Your task to perform on an android device: Go to calendar. Show me events next week Image 0: 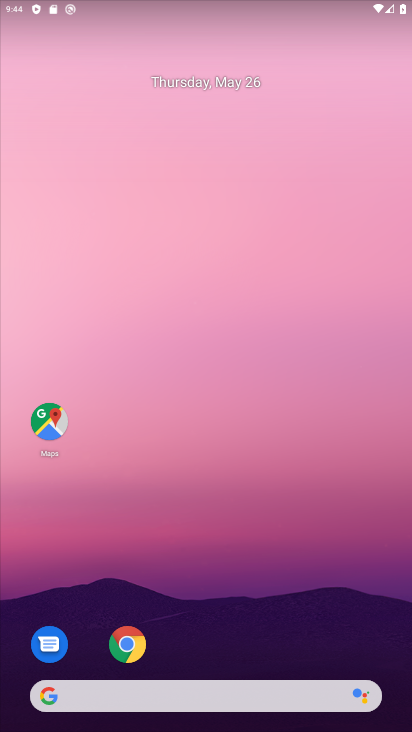
Step 0: drag from (272, 638) to (305, 39)
Your task to perform on an android device: Go to calendar. Show me events next week Image 1: 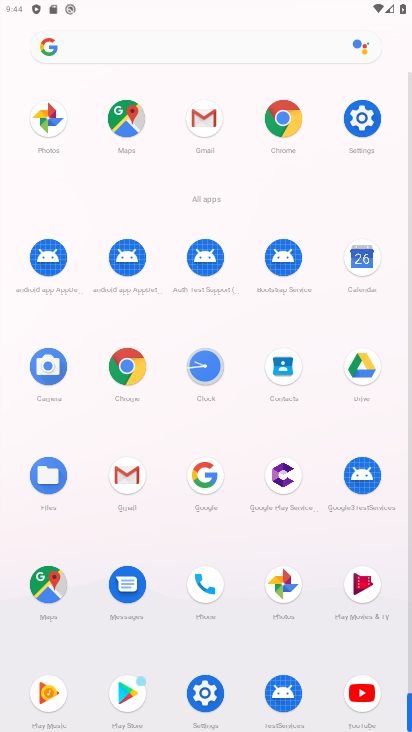
Step 1: click (366, 267)
Your task to perform on an android device: Go to calendar. Show me events next week Image 2: 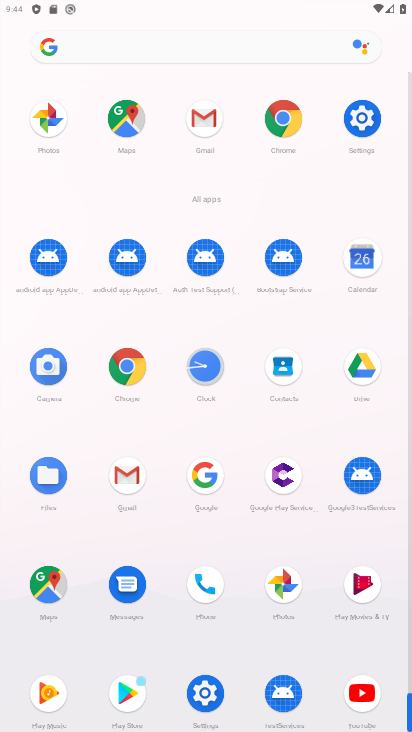
Step 2: click (367, 266)
Your task to perform on an android device: Go to calendar. Show me events next week Image 3: 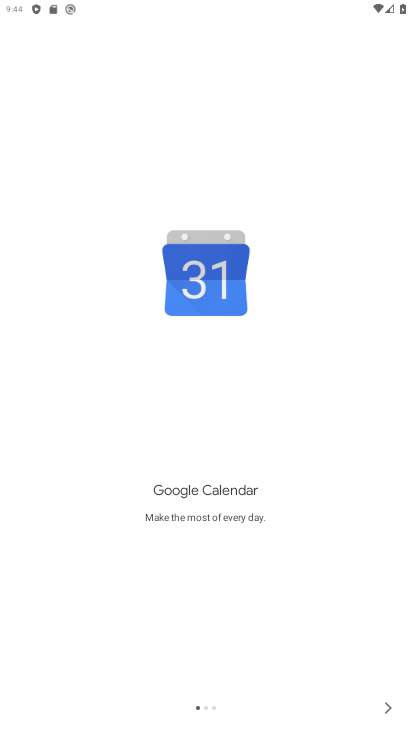
Step 3: click (378, 708)
Your task to perform on an android device: Go to calendar. Show me events next week Image 4: 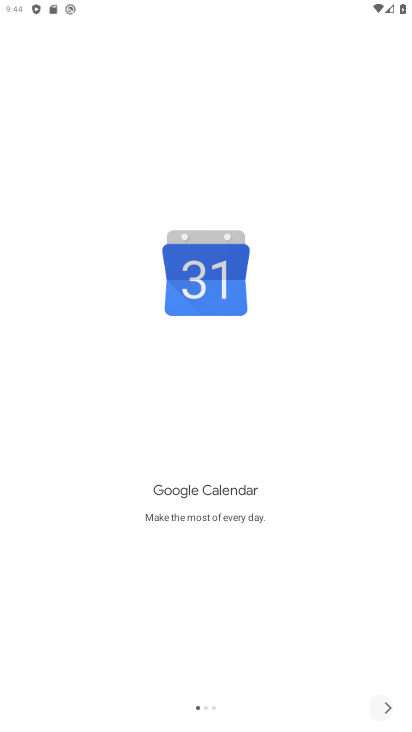
Step 4: click (380, 701)
Your task to perform on an android device: Go to calendar. Show me events next week Image 5: 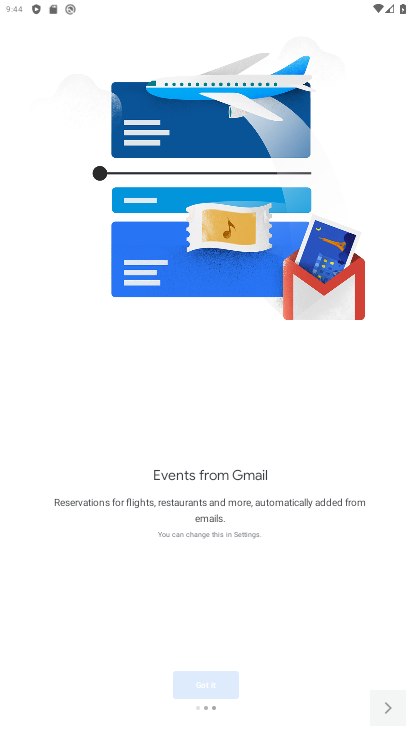
Step 5: click (382, 697)
Your task to perform on an android device: Go to calendar. Show me events next week Image 6: 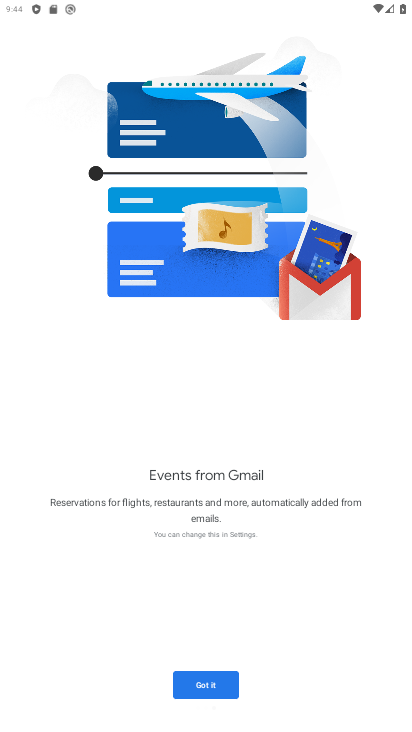
Step 6: click (381, 696)
Your task to perform on an android device: Go to calendar. Show me events next week Image 7: 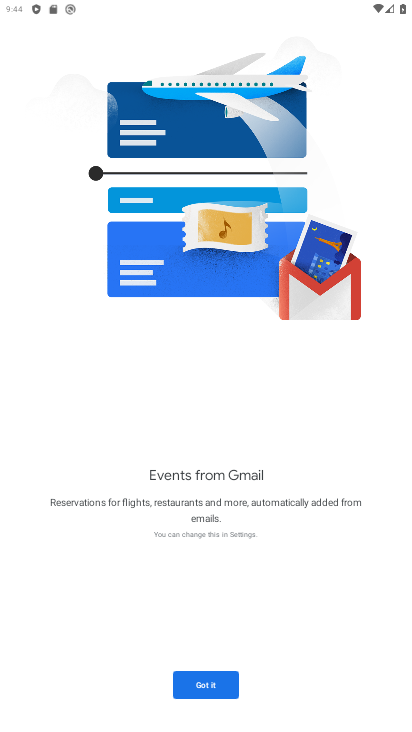
Step 7: click (381, 696)
Your task to perform on an android device: Go to calendar. Show me events next week Image 8: 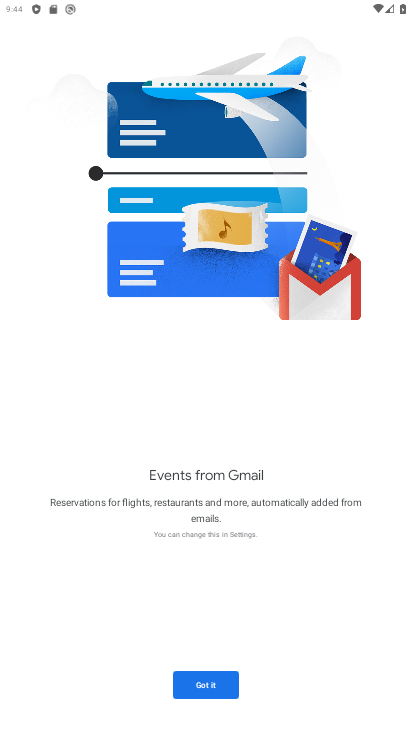
Step 8: click (380, 695)
Your task to perform on an android device: Go to calendar. Show me events next week Image 9: 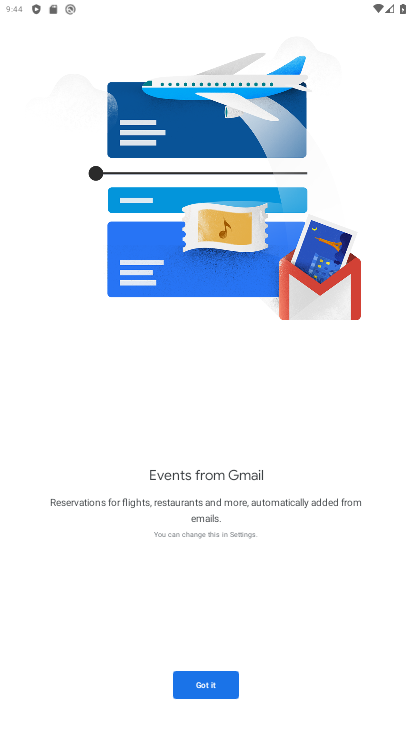
Step 9: click (212, 675)
Your task to perform on an android device: Go to calendar. Show me events next week Image 10: 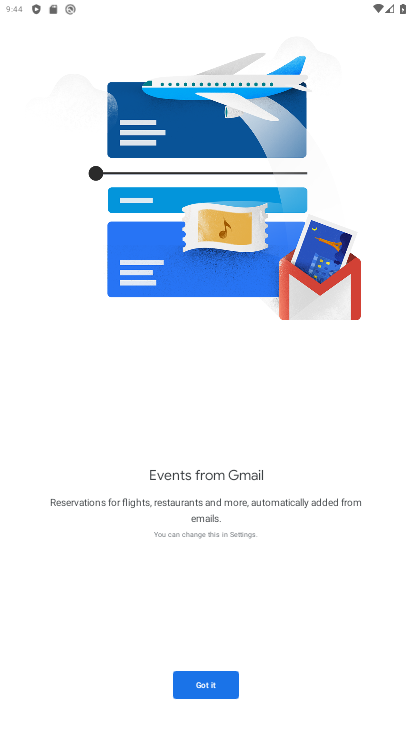
Step 10: click (204, 665)
Your task to perform on an android device: Go to calendar. Show me events next week Image 11: 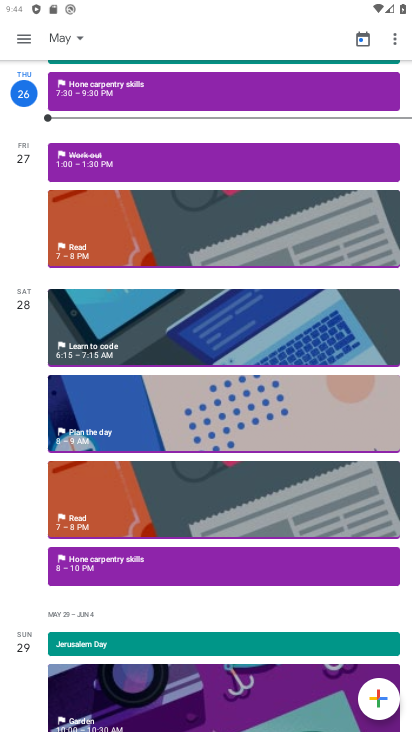
Step 11: drag from (126, 463) to (69, 89)
Your task to perform on an android device: Go to calendar. Show me events next week Image 12: 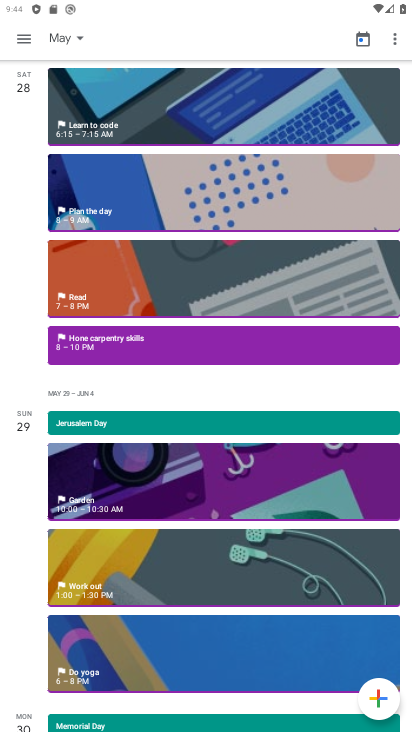
Step 12: drag from (189, 405) to (142, 41)
Your task to perform on an android device: Go to calendar. Show me events next week Image 13: 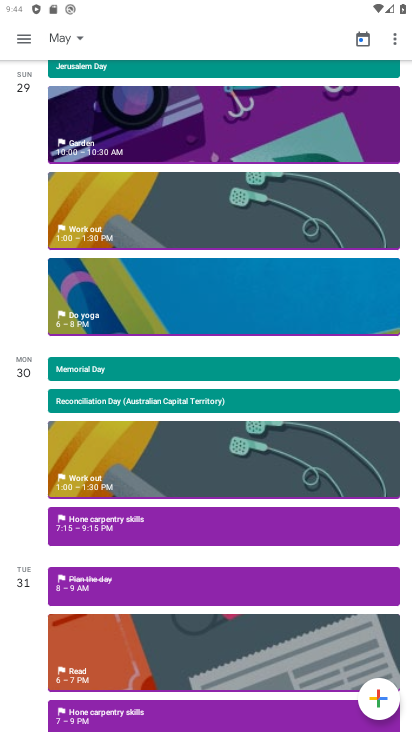
Step 13: drag from (200, 521) to (136, 71)
Your task to perform on an android device: Go to calendar. Show me events next week Image 14: 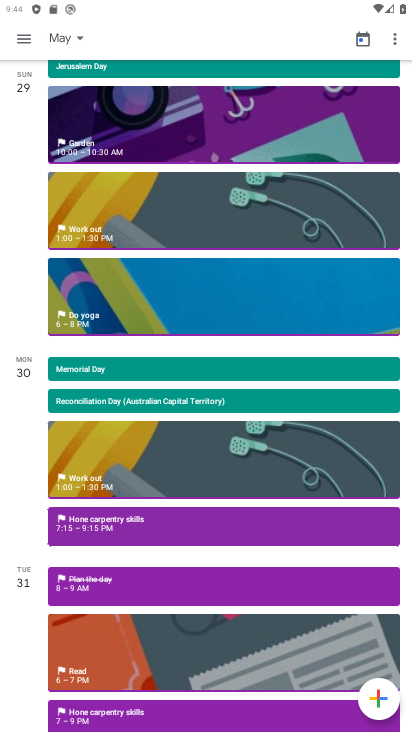
Step 14: click (182, 98)
Your task to perform on an android device: Go to calendar. Show me events next week Image 15: 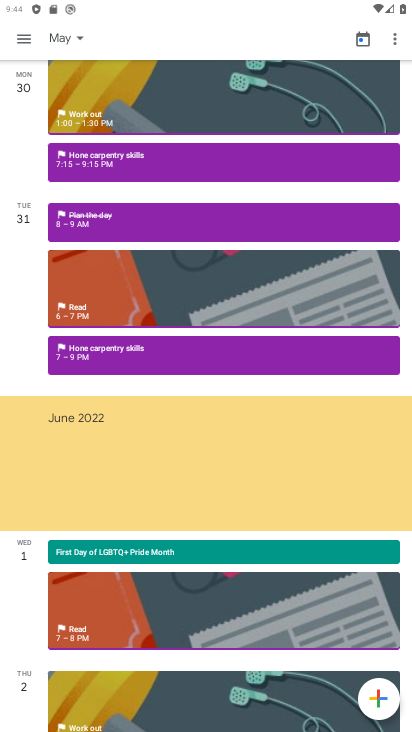
Step 15: drag from (170, 409) to (179, 40)
Your task to perform on an android device: Go to calendar. Show me events next week Image 16: 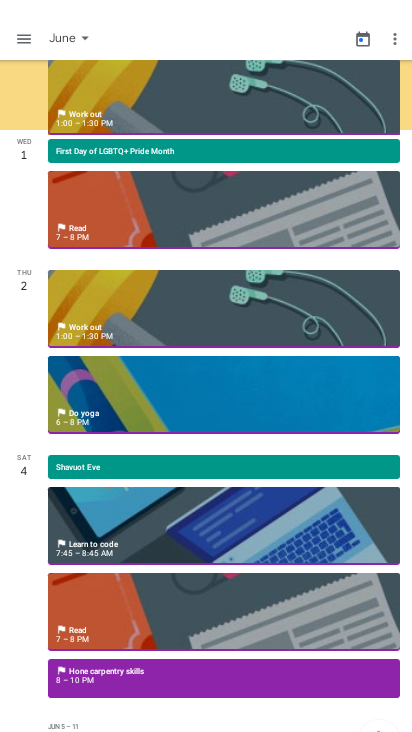
Step 16: drag from (156, 514) to (108, 99)
Your task to perform on an android device: Go to calendar. Show me events next week Image 17: 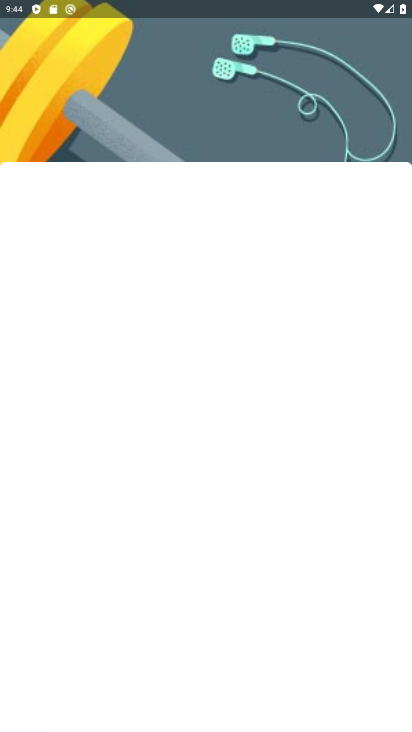
Step 17: click (165, 116)
Your task to perform on an android device: Go to calendar. Show me events next week Image 18: 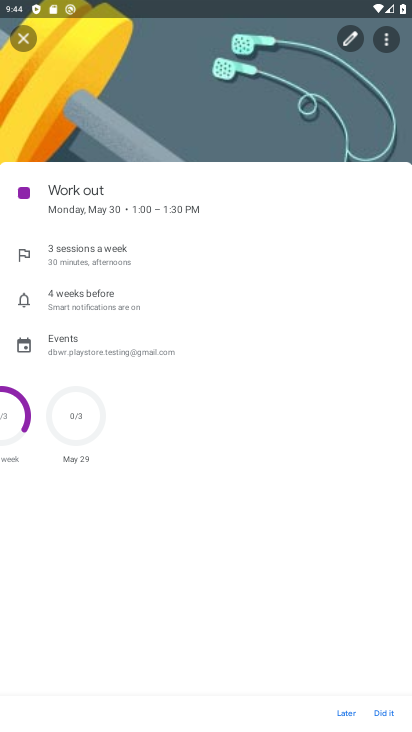
Step 18: task complete